Your task to perform on an android device: change the clock display to analog Image 0: 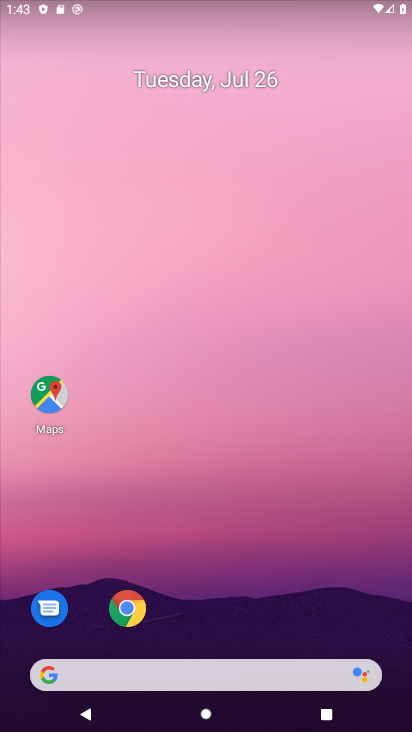
Step 0: press home button
Your task to perform on an android device: change the clock display to analog Image 1: 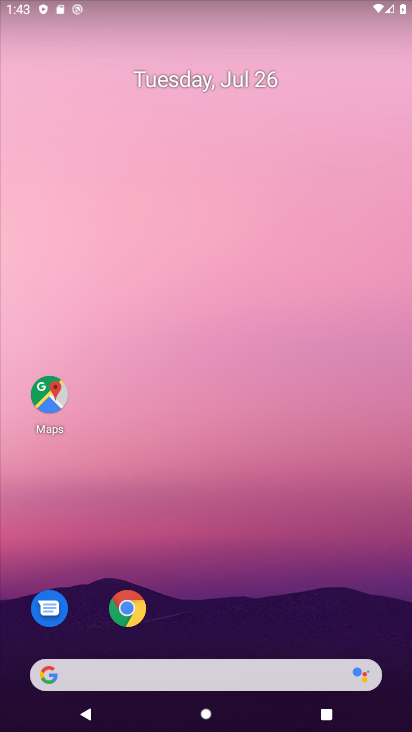
Step 1: drag from (236, 628) to (237, 0)
Your task to perform on an android device: change the clock display to analog Image 2: 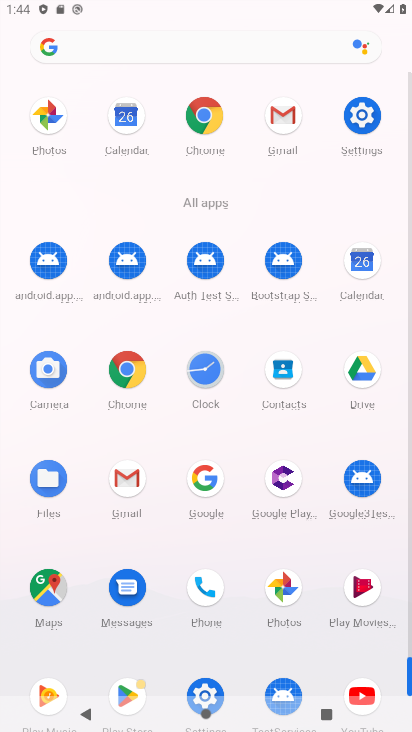
Step 2: click (211, 385)
Your task to perform on an android device: change the clock display to analog Image 3: 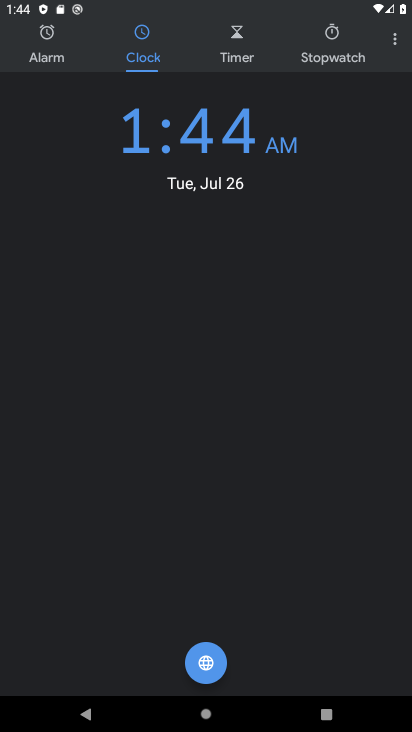
Step 3: click (399, 51)
Your task to perform on an android device: change the clock display to analog Image 4: 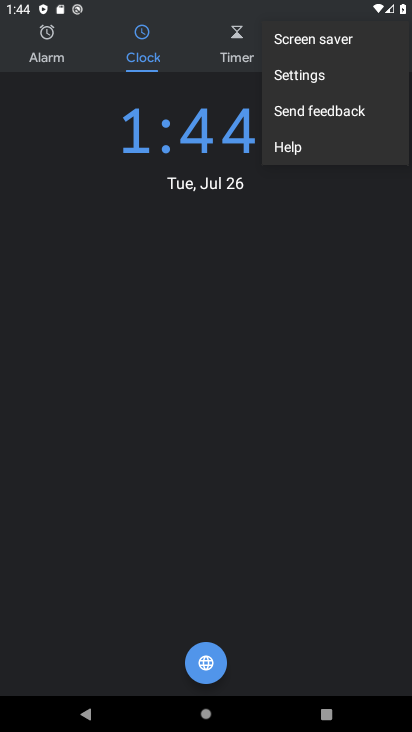
Step 4: click (302, 76)
Your task to perform on an android device: change the clock display to analog Image 5: 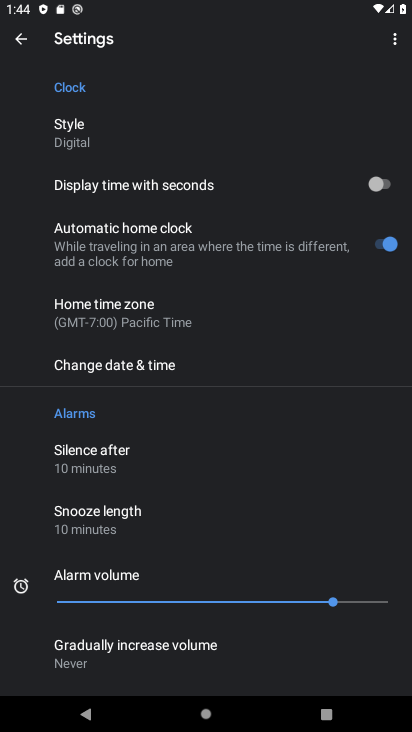
Step 5: click (76, 146)
Your task to perform on an android device: change the clock display to analog Image 6: 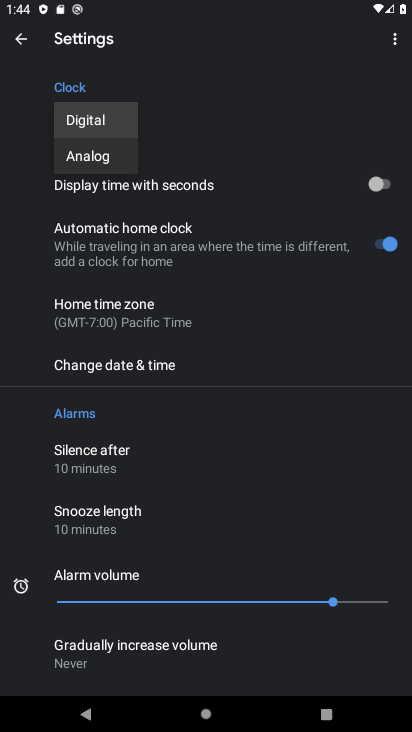
Step 6: click (99, 168)
Your task to perform on an android device: change the clock display to analog Image 7: 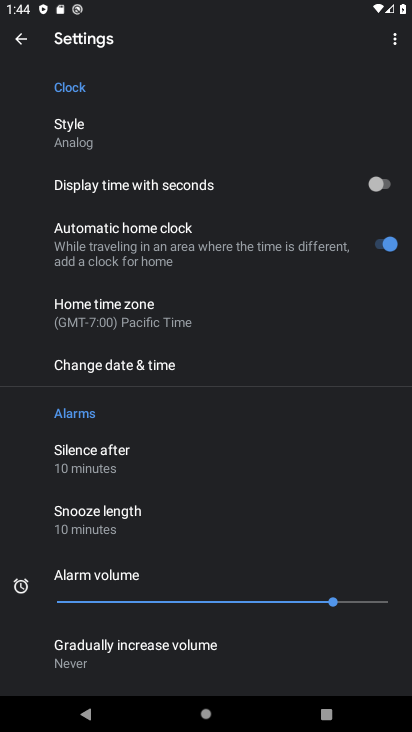
Step 7: task complete